Your task to perform on an android device: turn off picture-in-picture Image 0: 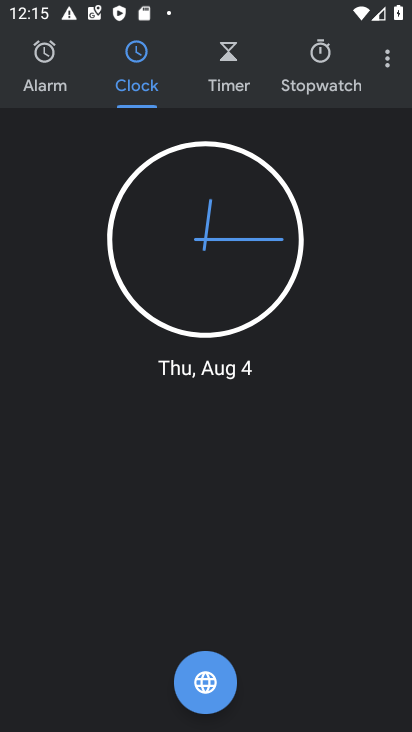
Step 0: press home button
Your task to perform on an android device: turn off picture-in-picture Image 1: 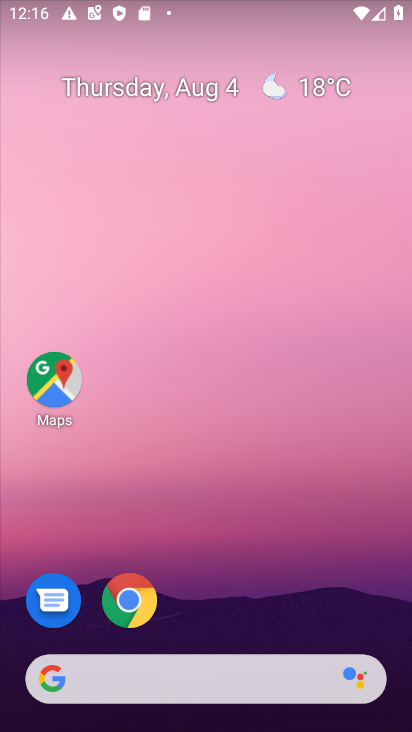
Step 1: click (128, 600)
Your task to perform on an android device: turn off picture-in-picture Image 2: 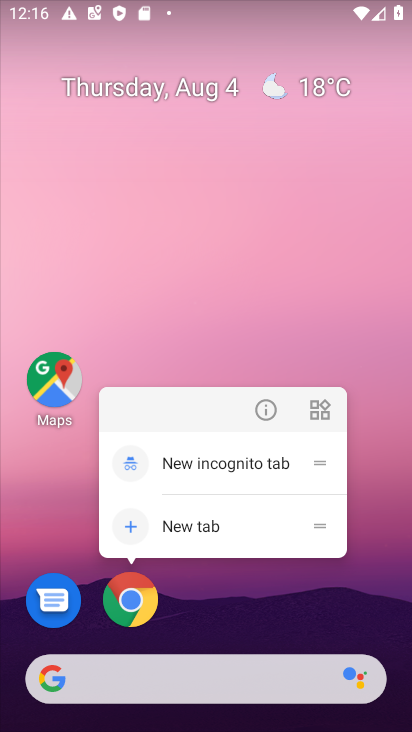
Step 2: click (265, 408)
Your task to perform on an android device: turn off picture-in-picture Image 3: 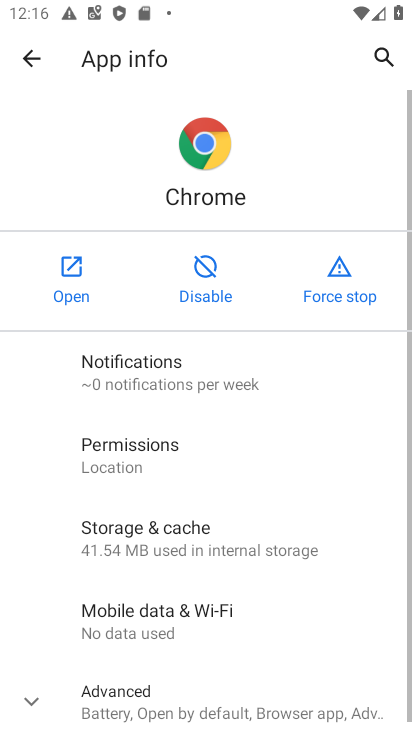
Step 3: drag from (245, 419) to (328, 72)
Your task to perform on an android device: turn off picture-in-picture Image 4: 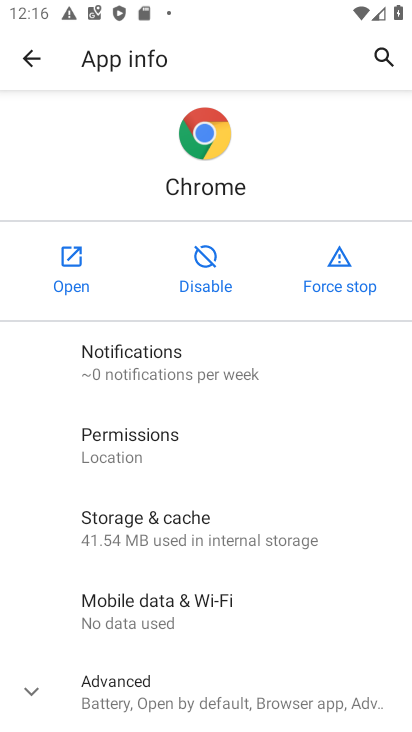
Step 4: drag from (224, 649) to (342, 68)
Your task to perform on an android device: turn off picture-in-picture Image 5: 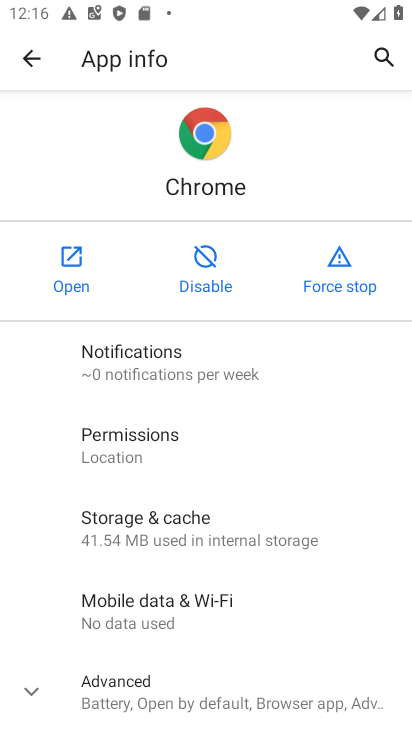
Step 5: click (147, 692)
Your task to perform on an android device: turn off picture-in-picture Image 6: 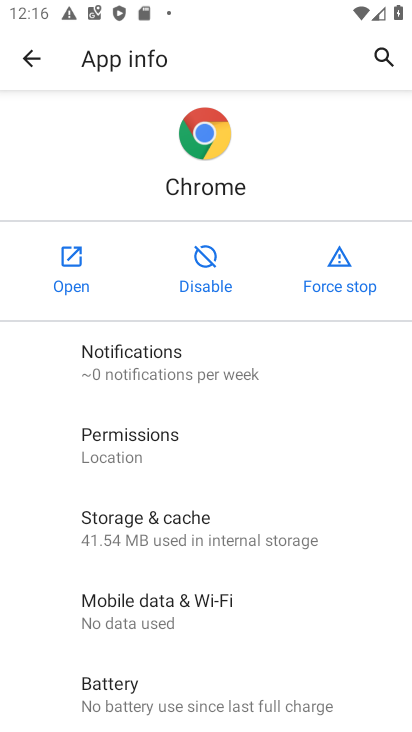
Step 6: drag from (245, 639) to (352, 64)
Your task to perform on an android device: turn off picture-in-picture Image 7: 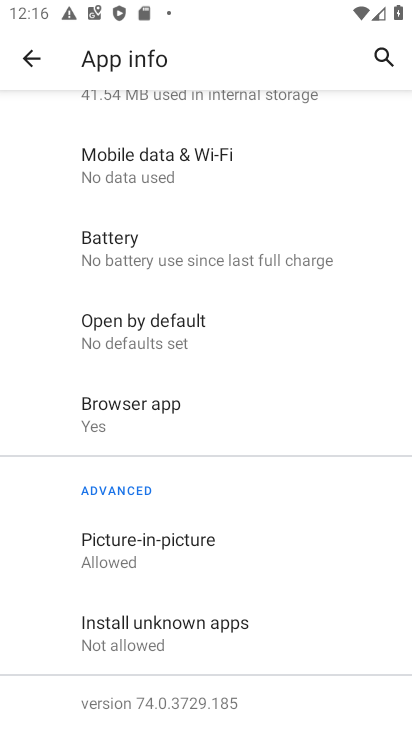
Step 7: click (133, 546)
Your task to perform on an android device: turn off picture-in-picture Image 8: 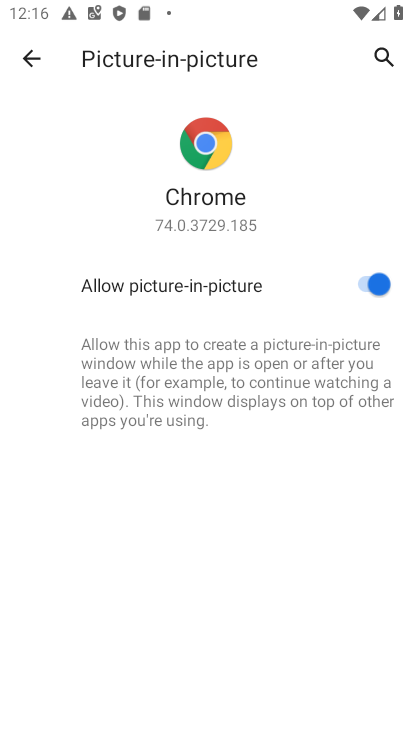
Step 8: click (359, 277)
Your task to perform on an android device: turn off picture-in-picture Image 9: 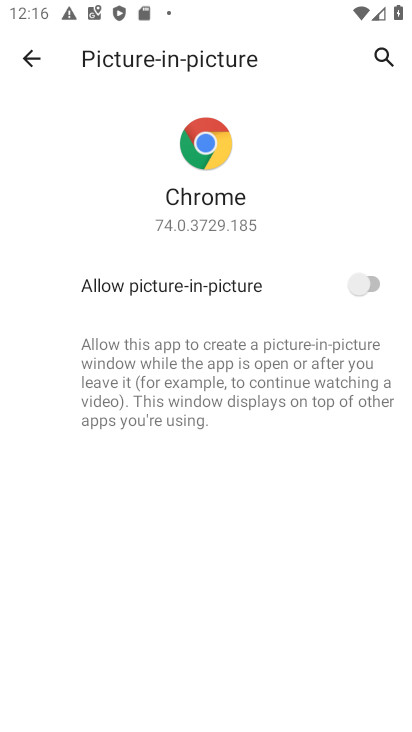
Step 9: task complete